Your task to perform on an android device: set an alarm Image 0: 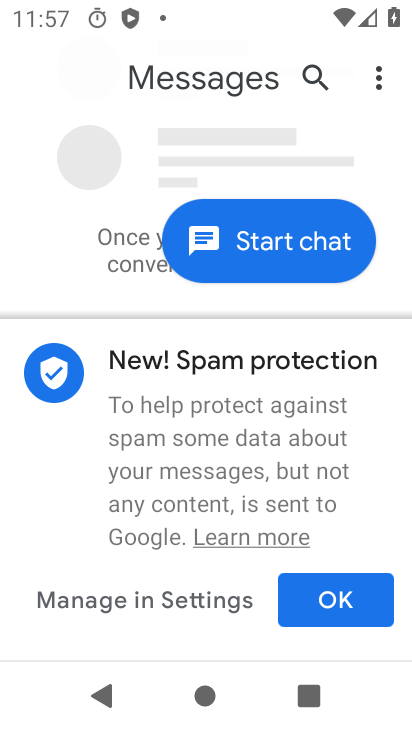
Step 0: press back button
Your task to perform on an android device: set an alarm Image 1: 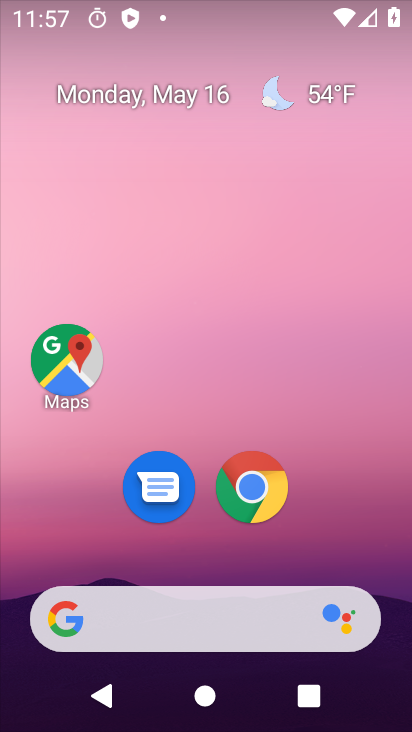
Step 1: drag from (191, 564) to (233, 122)
Your task to perform on an android device: set an alarm Image 2: 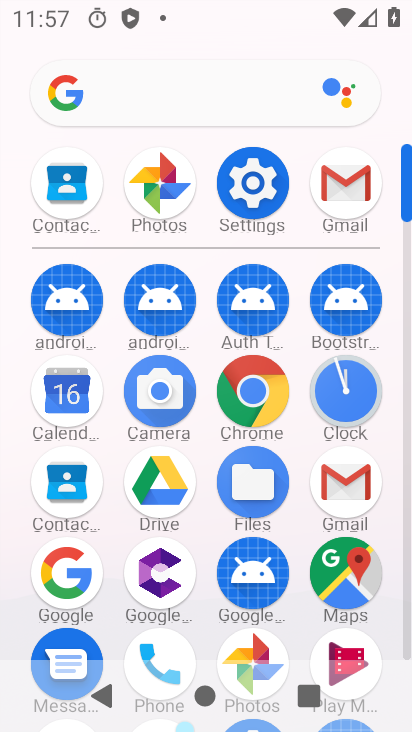
Step 2: click (349, 392)
Your task to perform on an android device: set an alarm Image 3: 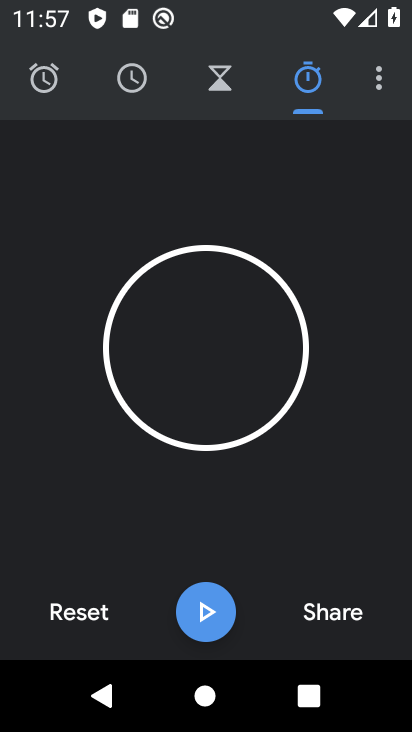
Step 3: click (48, 79)
Your task to perform on an android device: set an alarm Image 4: 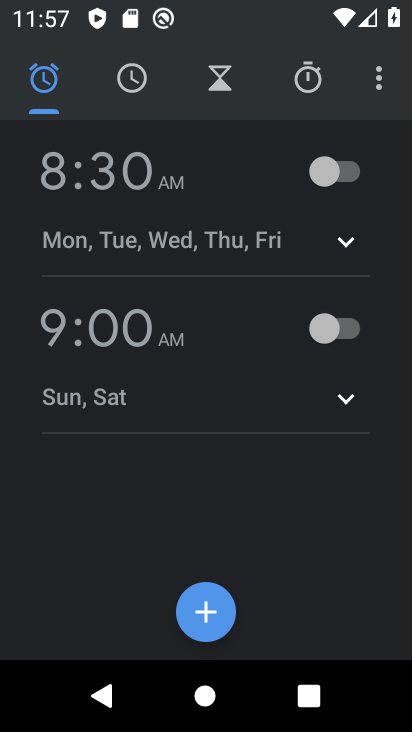
Step 4: click (331, 173)
Your task to perform on an android device: set an alarm Image 5: 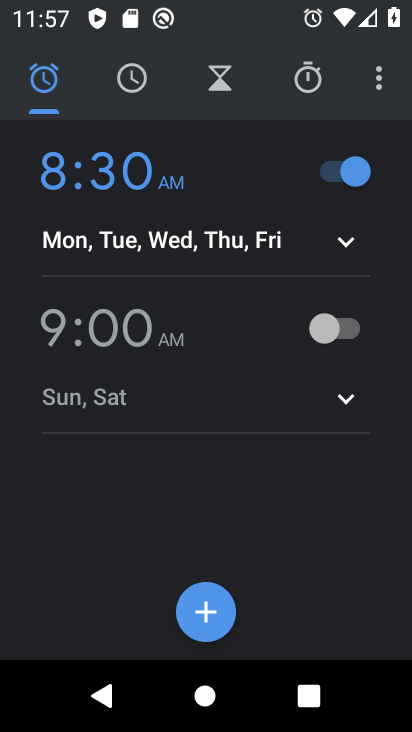
Step 5: task complete